Your task to perform on an android device: turn off wifi Image 0: 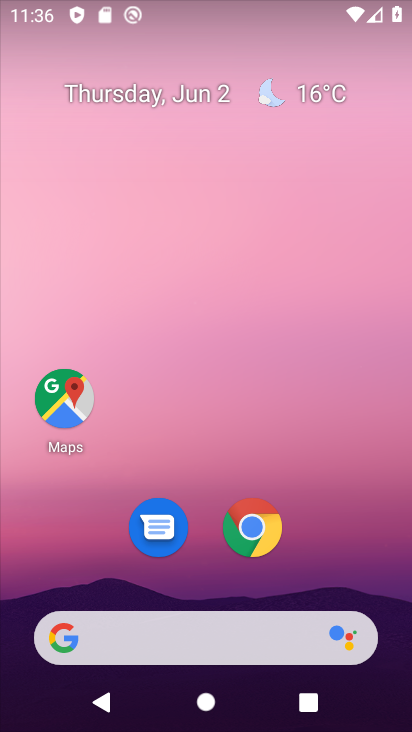
Step 0: drag from (189, 636) to (157, 94)
Your task to perform on an android device: turn off wifi Image 1: 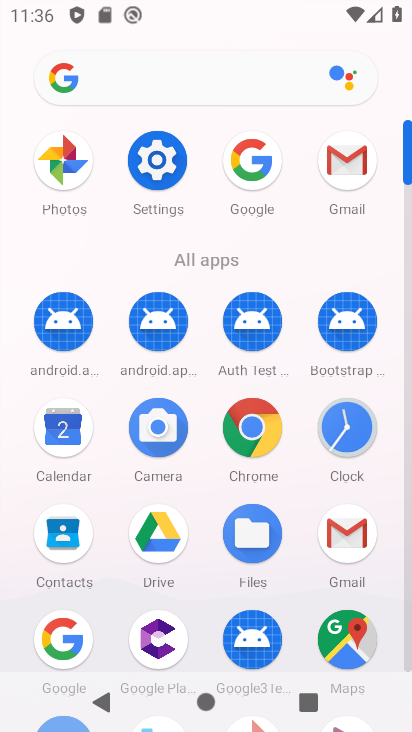
Step 1: click (148, 169)
Your task to perform on an android device: turn off wifi Image 2: 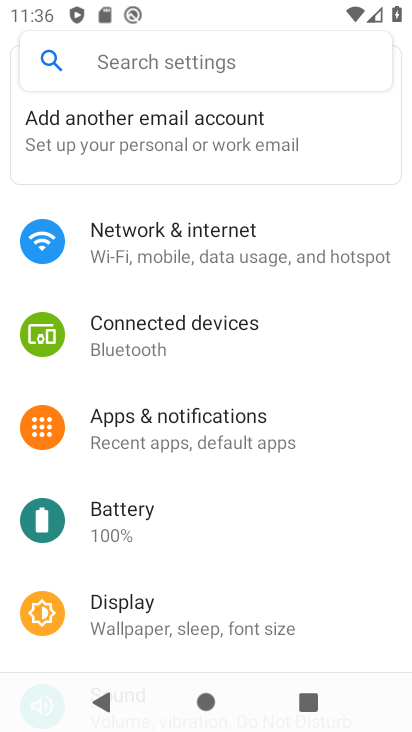
Step 2: click (111, 236)
Your task to perform on an android device: turn off wifi Image 3: 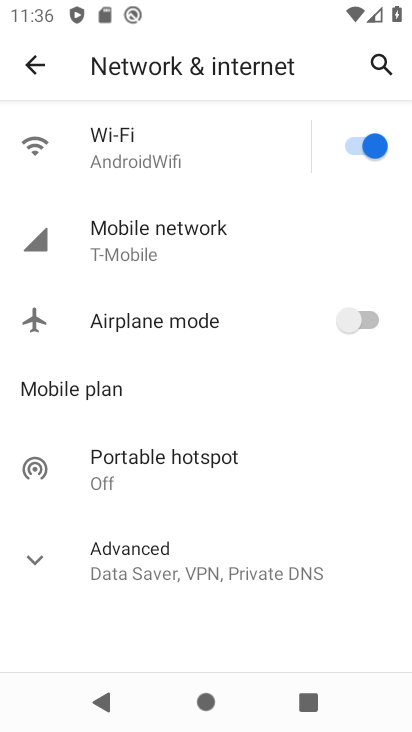
Step 3: click (375, 149)
Your task to perform on an android device: turn off wifi Image 4: 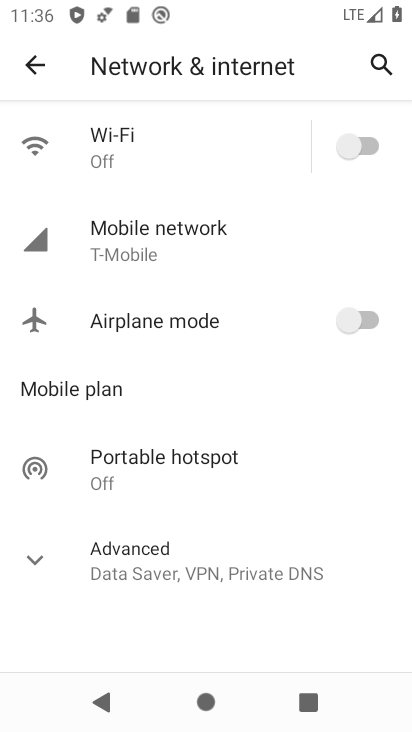
Step 4: task complete